Your task to perform on an android device: turn on notifications settings in the gmail app Image 0: 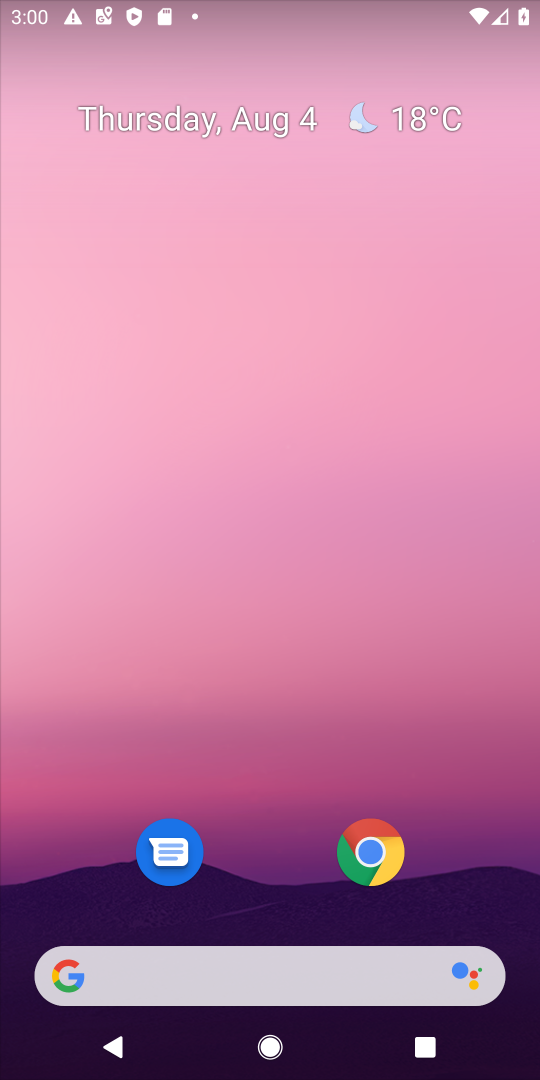
Step 0: drag from (240, 928) to (315, 64)
Your task to perform on an android device: turn on notifications settings in the gmail app Image 1: 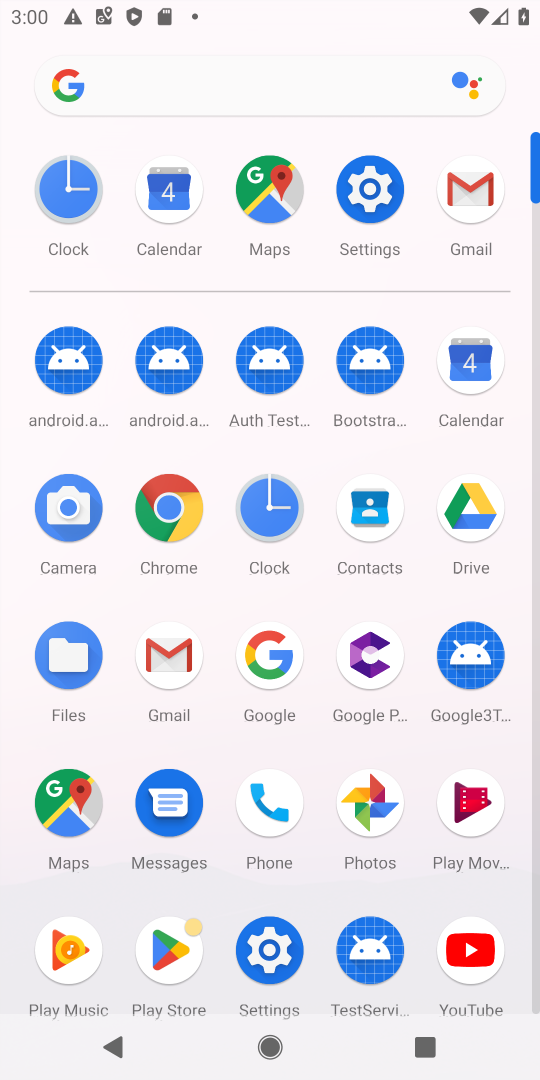
Step 1: click (474, 200)
Your task to perform on an android device: turn on notifications settings in the gmail app Image 2: 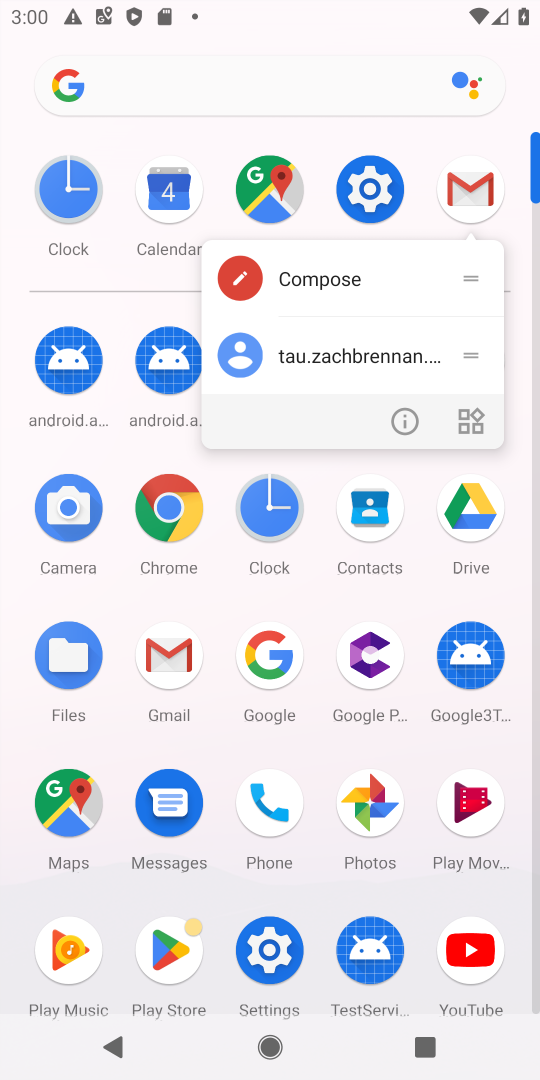
Step 2: click (399, 420)
Your task to perform on an android device: turn on notifications settings in the gmail app Image 3: 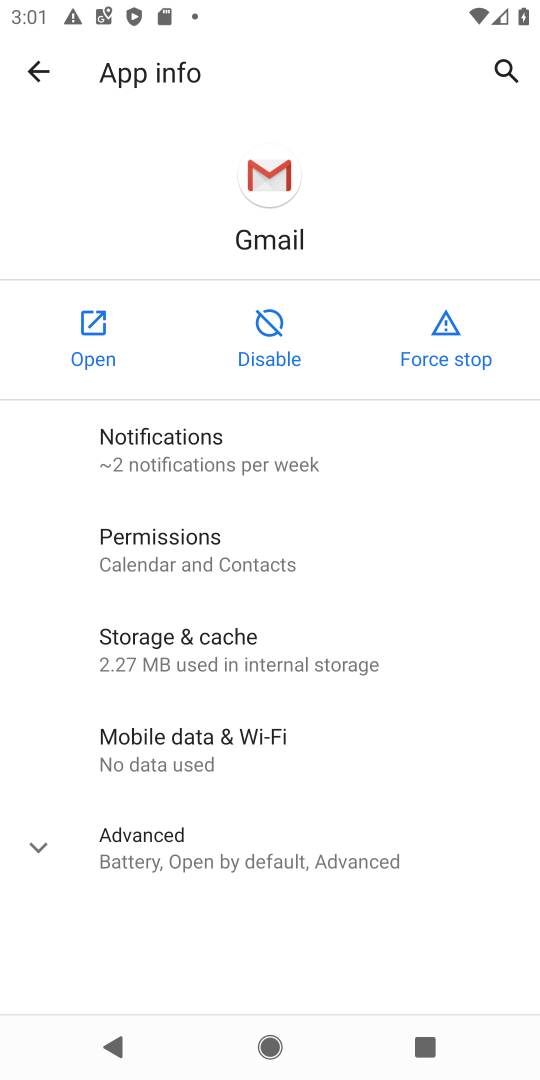
Step 3: click (260, 460)
Your task to perform on an android device: turn on notifications settings in the gmail app Image 4: 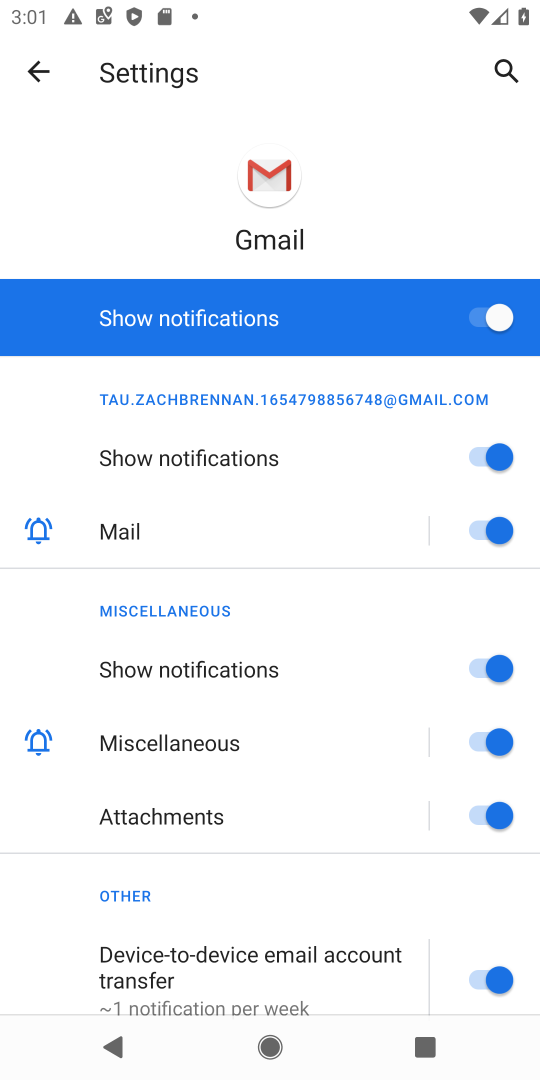
Step 4: task complete